Your task to perform on an android device: Open Google Maps Image 0: 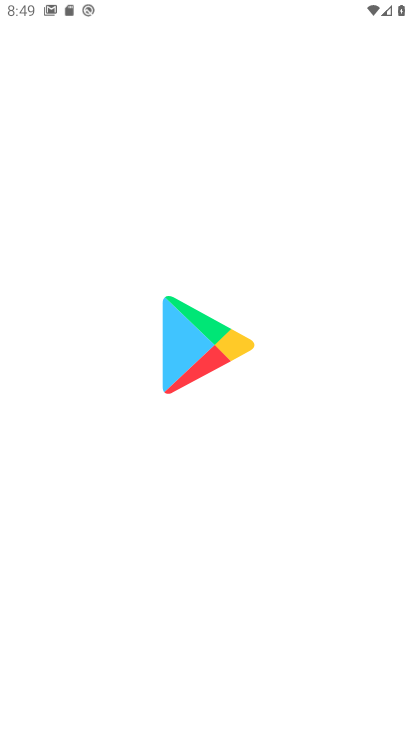
Step 0: click (265, 578)
Your task to perform on an android device: Open Google Maps Image 1: 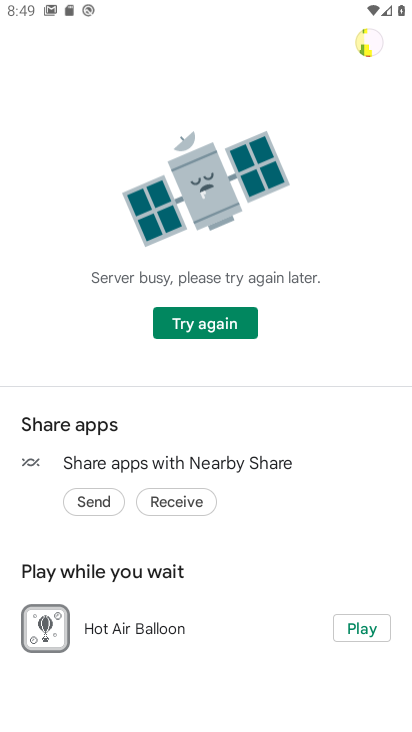
Step 1: press home button
Your task to perform on an android device: Open Google Maps Image 2: 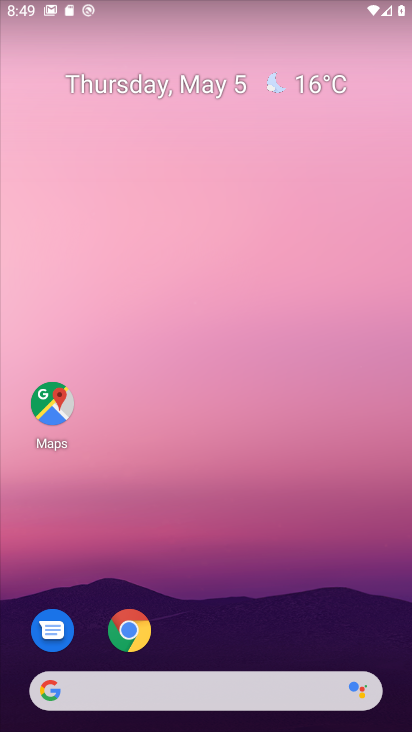
Step 2: drag from (268, 632) to (224, 0)
Your task to perform on an android device: Open Google Maps Image 3: 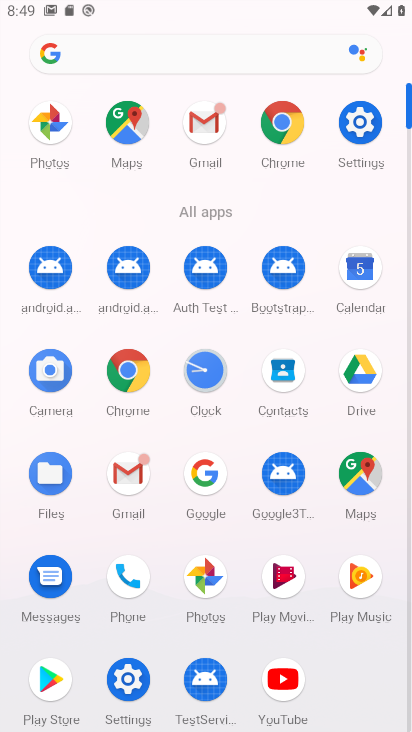
Step 3: click (121, 133)
Your task to perform on an android device: Open Google Maps Image 4: 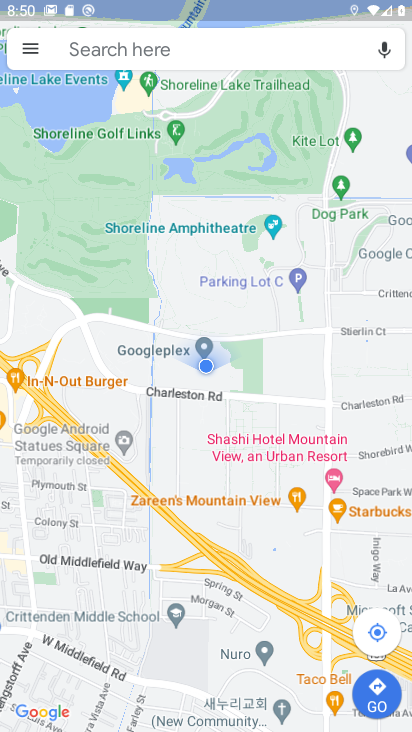
Step 4: task complete